Your task to perform on an android device: check the backup settings in the google photos Image 0: 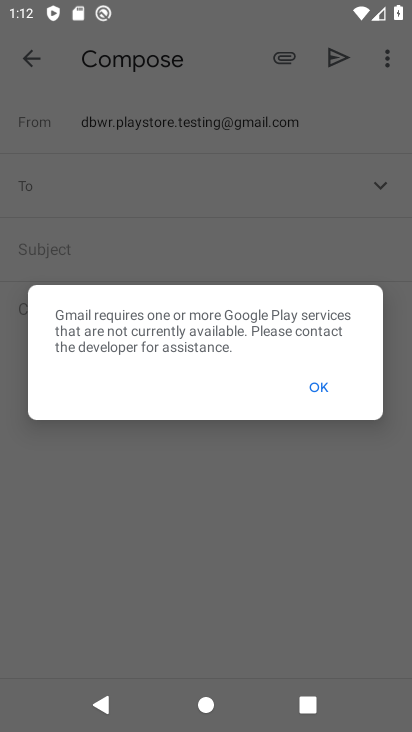
Step 0: press back button
Your task to perform on an android device: check the backup settings in the google photos Image 1: 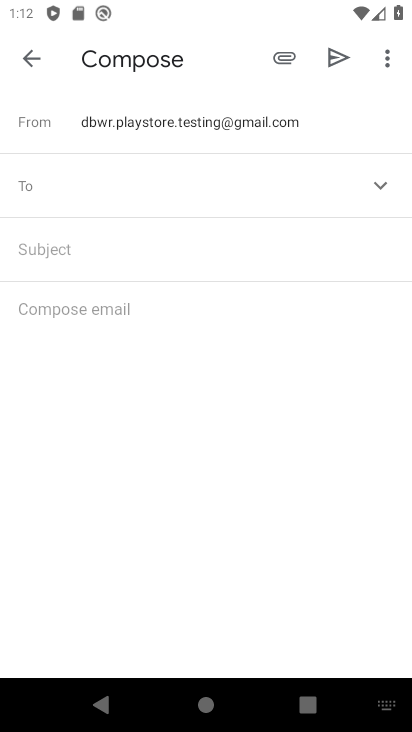
Step 1: press back button
Your task to perform on an android device: check the backup settings in the google photos Image 2: 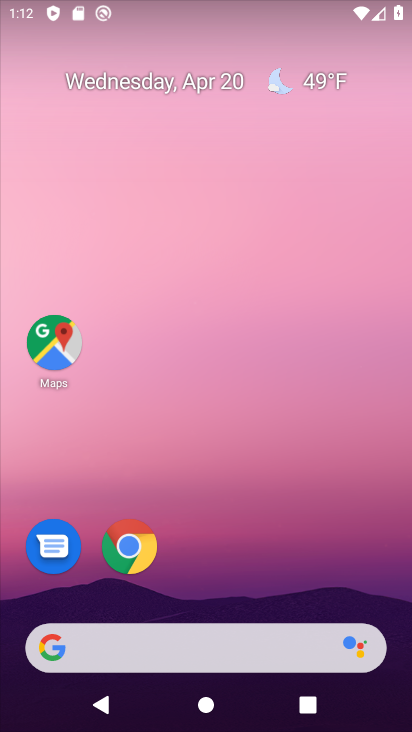
Step 2: drag from (246, 552) to (294, 33)
Your task to perform on an android device: check the backup settings in the google photos Image 3: 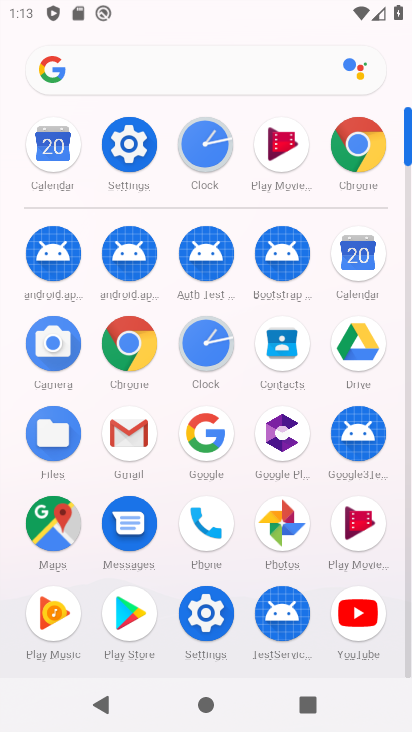
Step 3: click (273, 521)
Your task to perform on an android device: check the backup settings in the google photos Image 4: 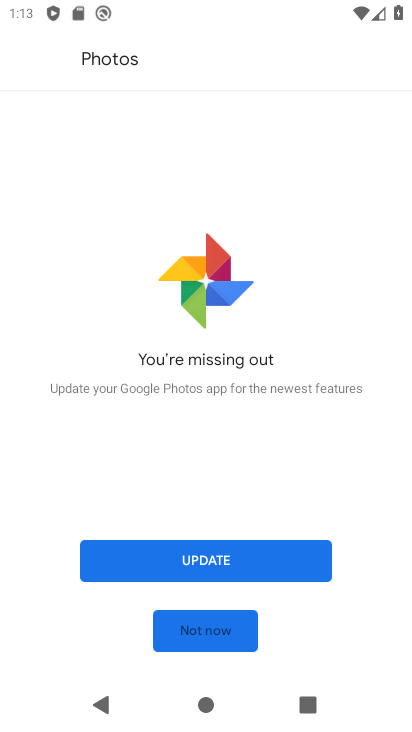
Step 4: click (223, 634)
Your task to perform on an android device: check the backup settings in the google photos Image 5: 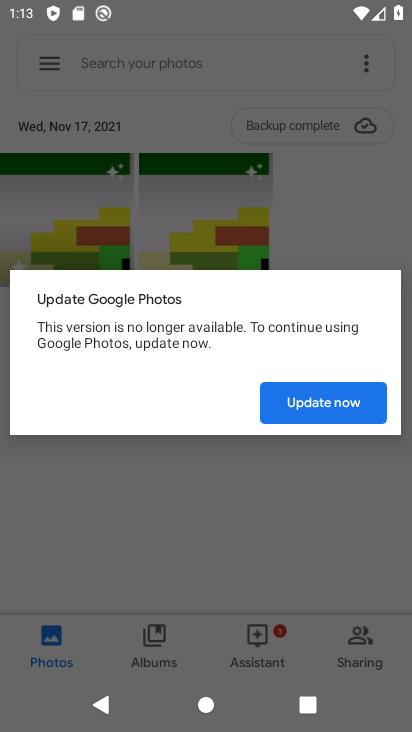
Step 5: click (312, 403)
Your task to perform on an android device: check the backup settings in the google photos Image 6: 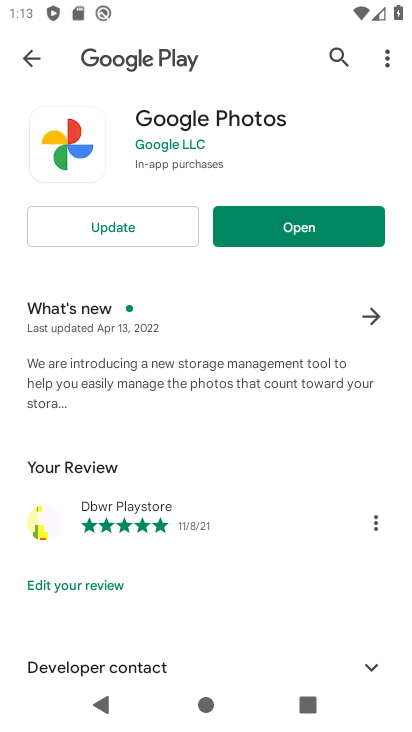
Step 6: click (298, 220)
Your task to perform on an android device: check the backup settings in the google photos Image 7: 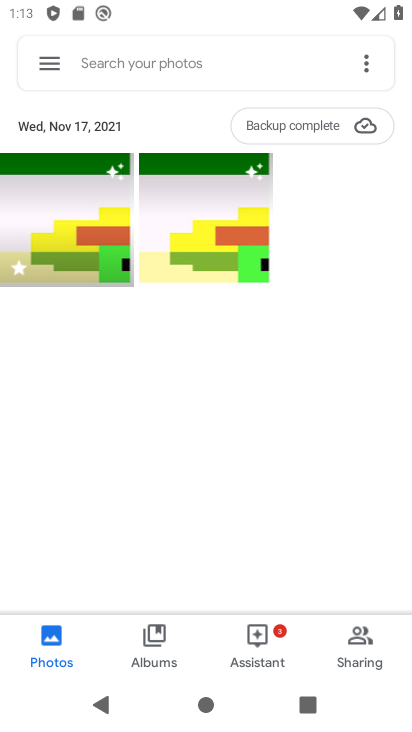
Step 7: click (48, 65)
Your task to perform on an android device: check the backup settings in the google photos Image 8: 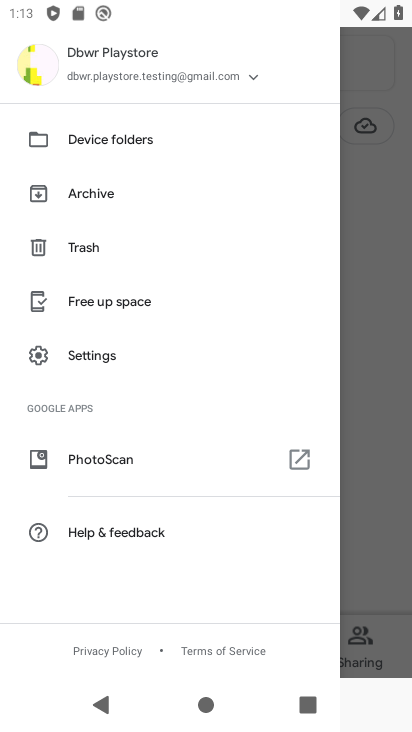
Step 8: click (98, 362)
Your task to perform on an android device: check the backup settings in the google photos Image 9: 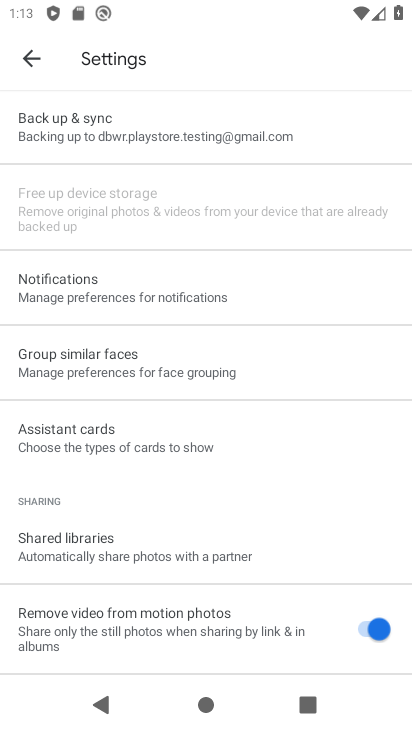
Step 9: click (102, 124)
Your task to perform on an android device: check the backup settings in the google photos Image 10: 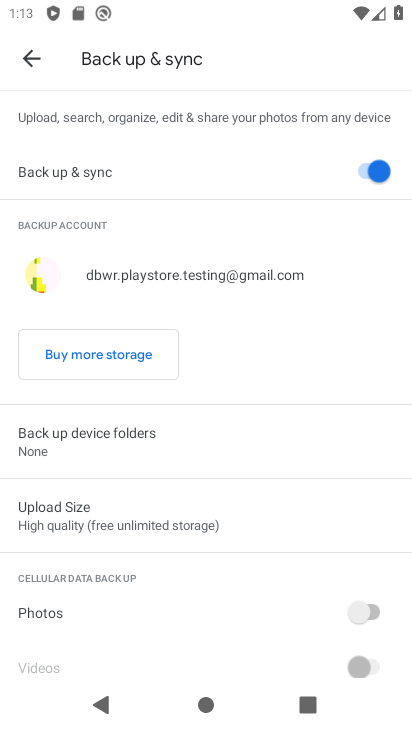
Step 10: task complete